Your task to perform on an android device: toggle translation in the chrome app Image 0: 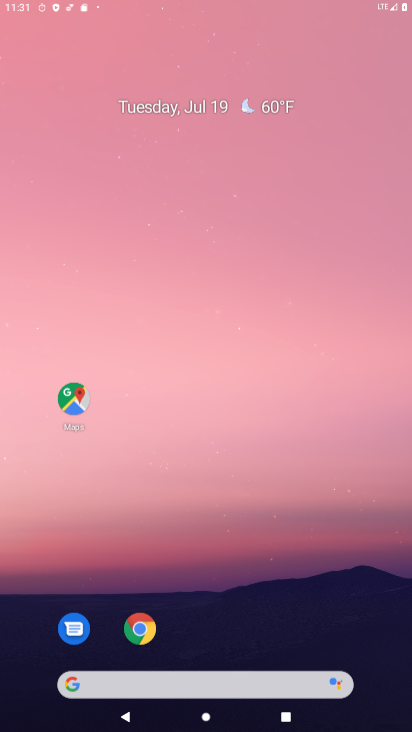
Step 0: drag from (281, 624) to (256, 77)
Your task to perform on an android device: toggle translation in the chrome app Image 1: 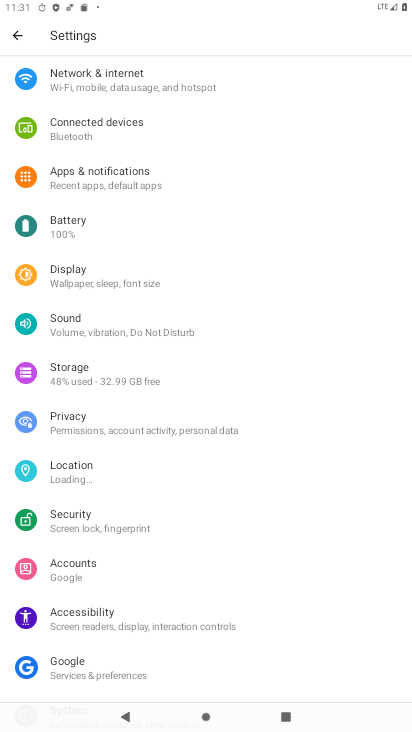
Step 1: press home button
Your task to perform on an android device: toggle translation in the chrome app Image 2: 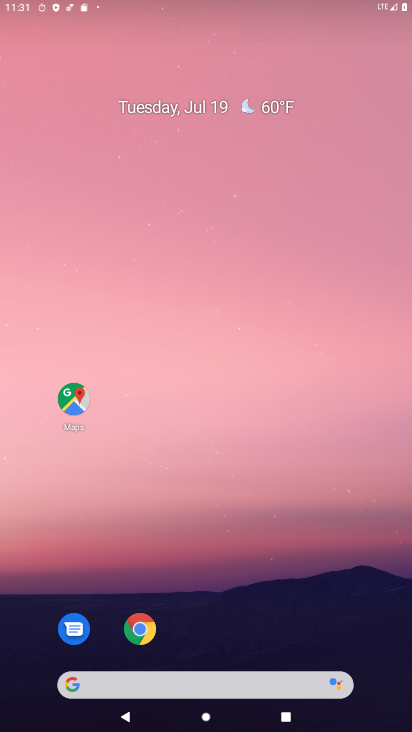
Step 2: drag from (271, 396) to (236, 39)
Your task to perform on an android device: toggle translation in the chrome app Image 3: 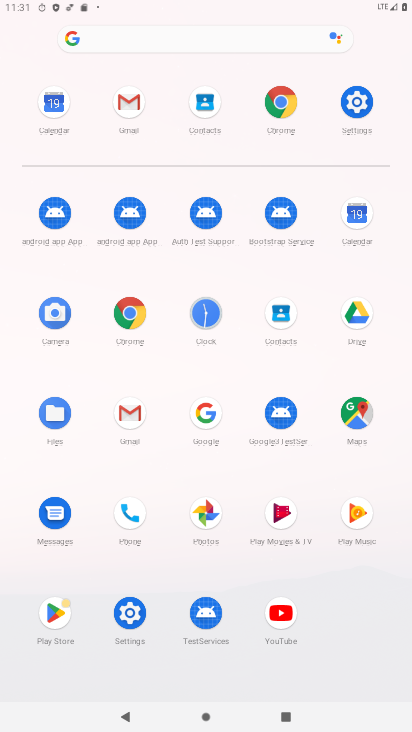
Step 3: click (276, 99)
Your task to perform on an android device: toggle translation in the chrome app Image 4: 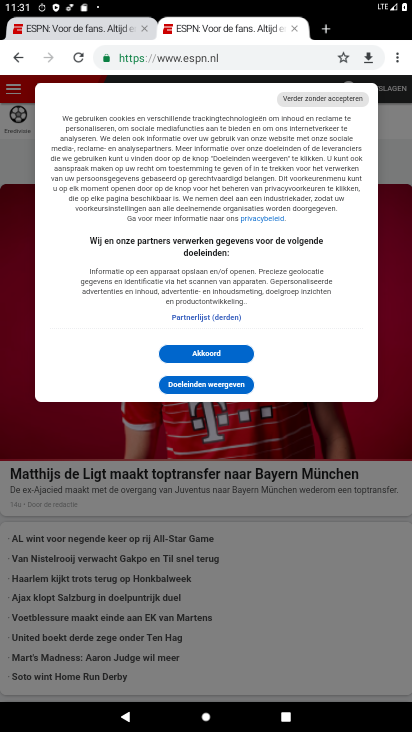
Step 4: drag from (394, 46) to (313, 326)
Your task to perform on an android device: toggle translation in the chrome app Image 5: 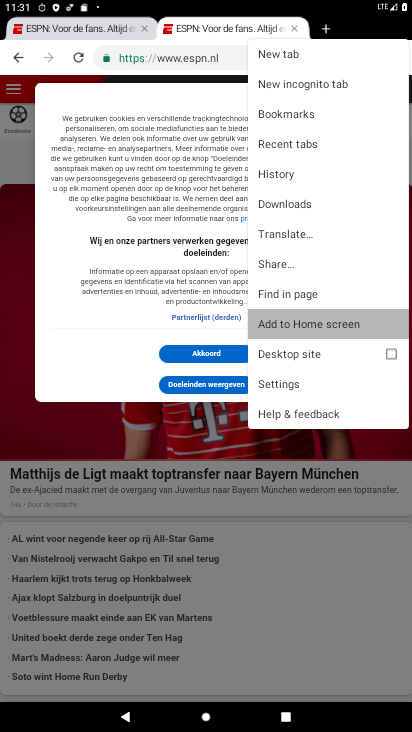
Step 5: click (308, 269)
Your task to perform on an android device: toggle translation in the chrome app Image 6: 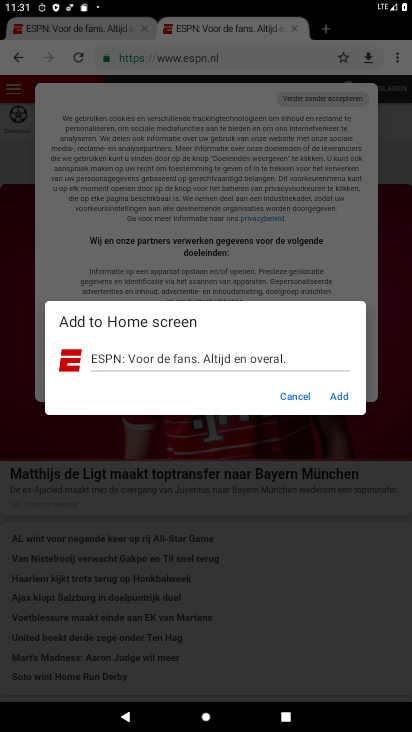
Step 6: click (290, 389)
Your task to perform on an android device: toggle translation in the chrome app Image 7: 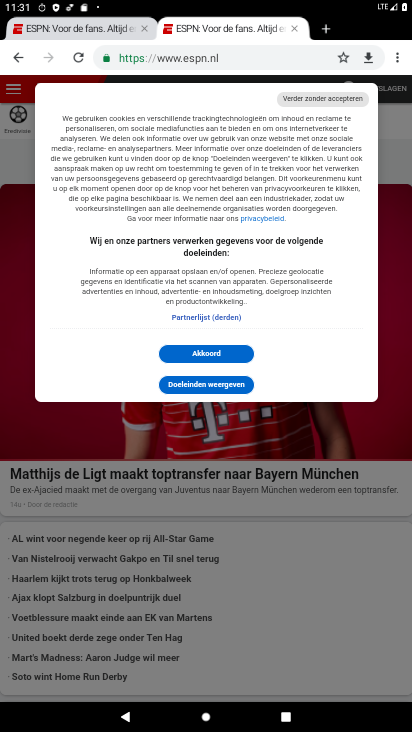
Step 7: drag from (399, 50) to (297, 388)
Your task to perform on an android device: toggle translation in the chrome app Image 8: 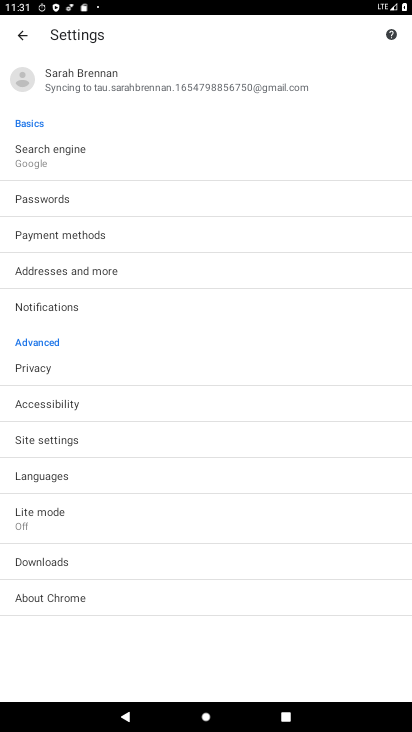
Step 8: click (60, 477)
Your task to perform on an android device: toggle translation in the chrome app Image 9: 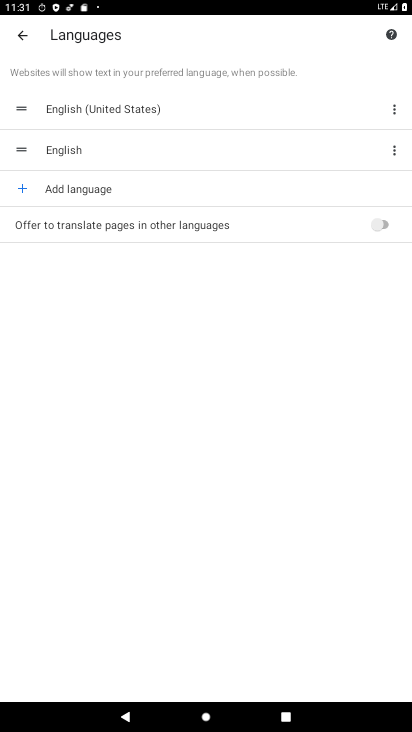
Step 9: click (376, 215)
Your task to perform on an android device: toggle translation in the chrome app Image 10: 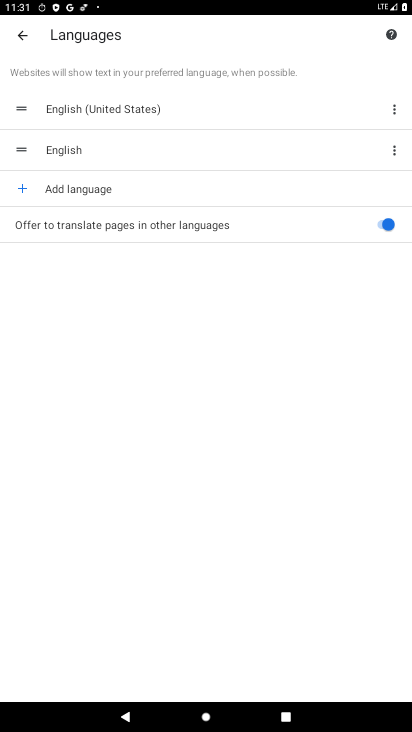
Step 10: task complete